Your task to perform on an android device: uninstall "File Manager" Image 0: 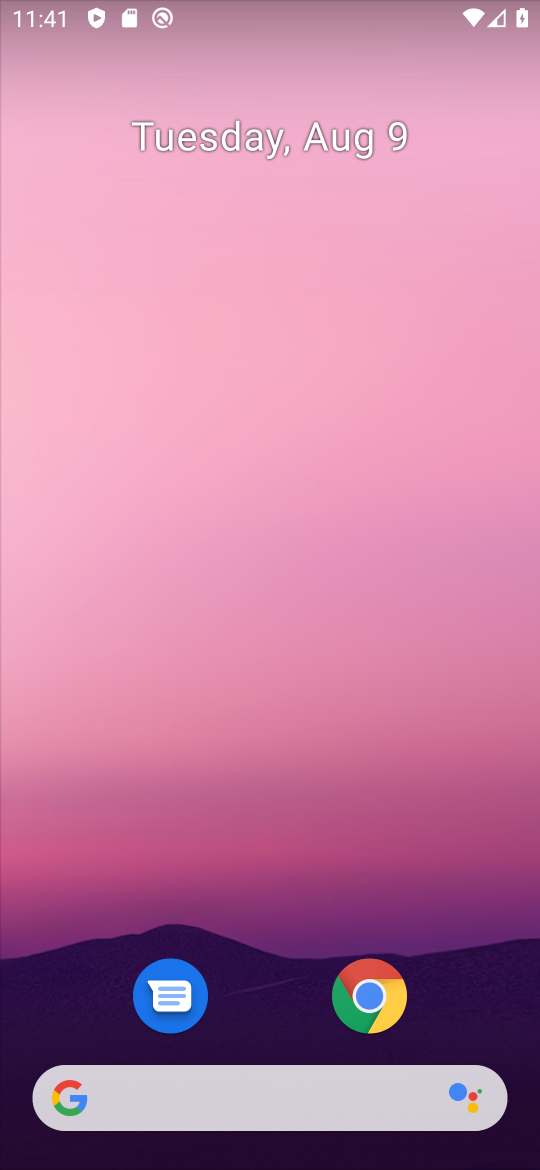
Step 0: drag from (136, 976) to (199, 299)
Your task to perform on an android device: uninstall "File Manager" Image 1: 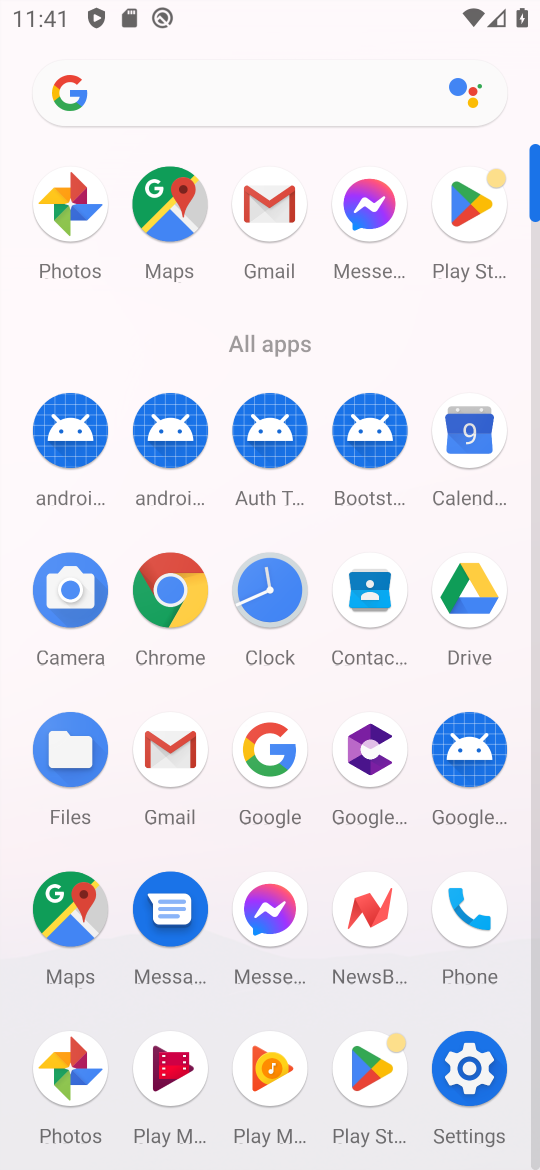
Step 1: click (72, 749)
Your task to perform on an android device: uninstall "File Manager" Image 2: 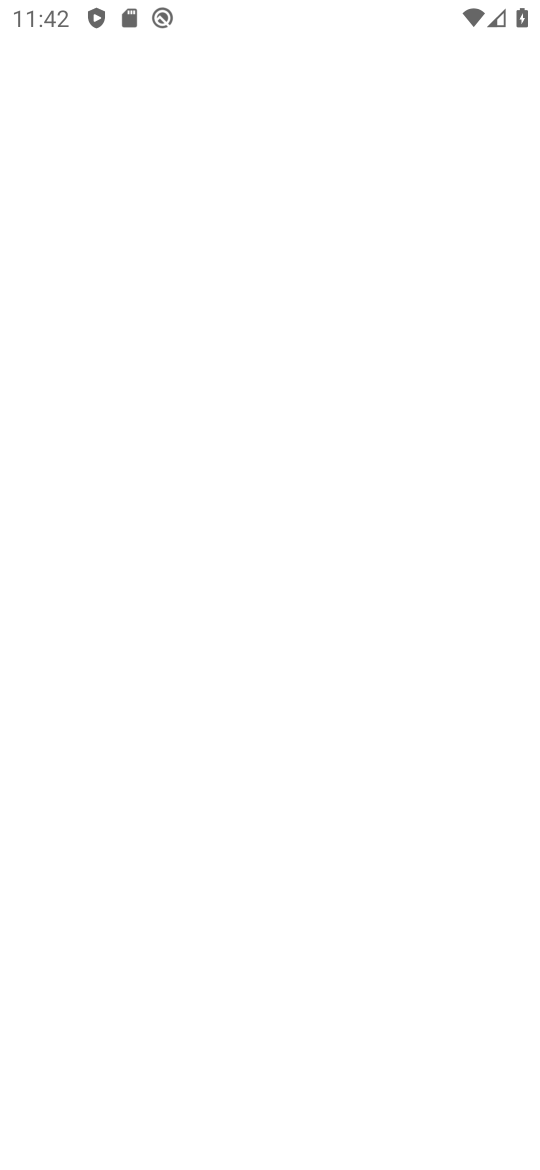
Step 2: press back button
Your task to perform on an android device: uninstall "File Manager" Image 3: 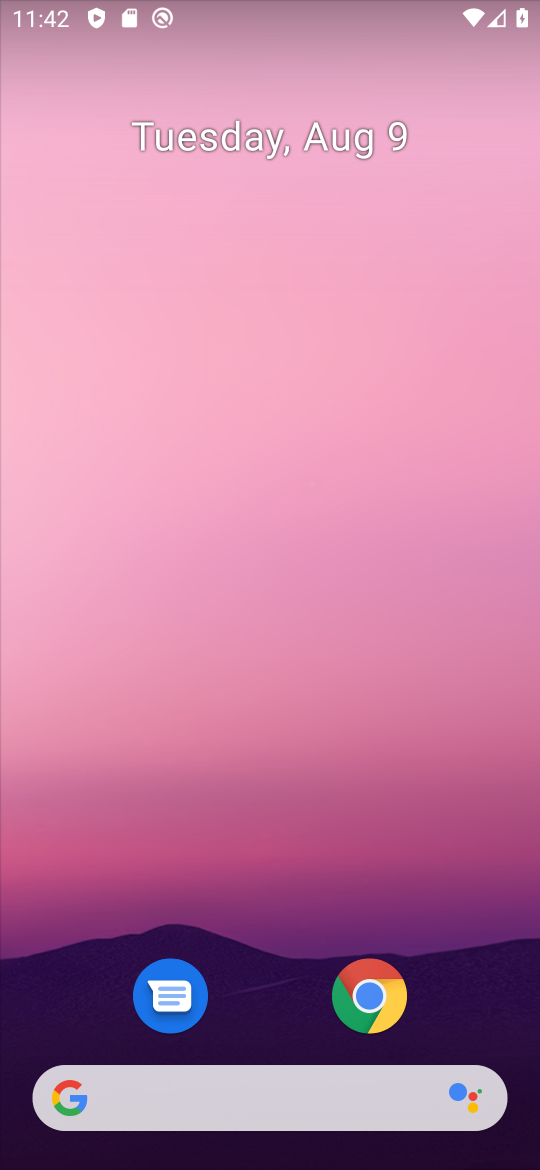
Step 3: drag from (272, 811) to (307, 195)
Your task to perform on an android device: uninstall "File Manager" Image 4: 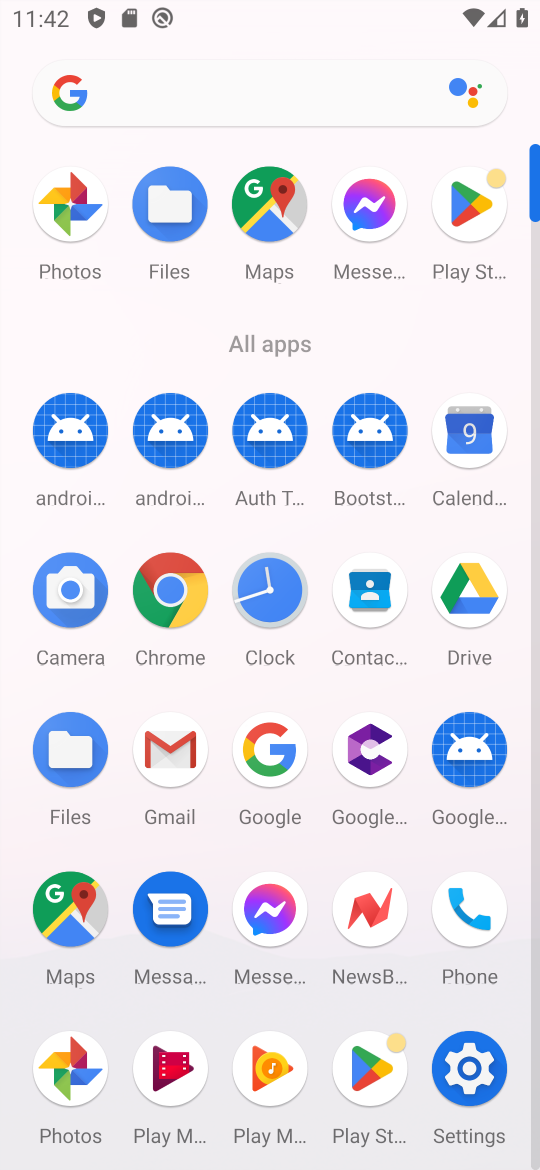
Step 4: click (459, 218)
Your task to perform on an android device: uninstall "File Manager" Image 5: 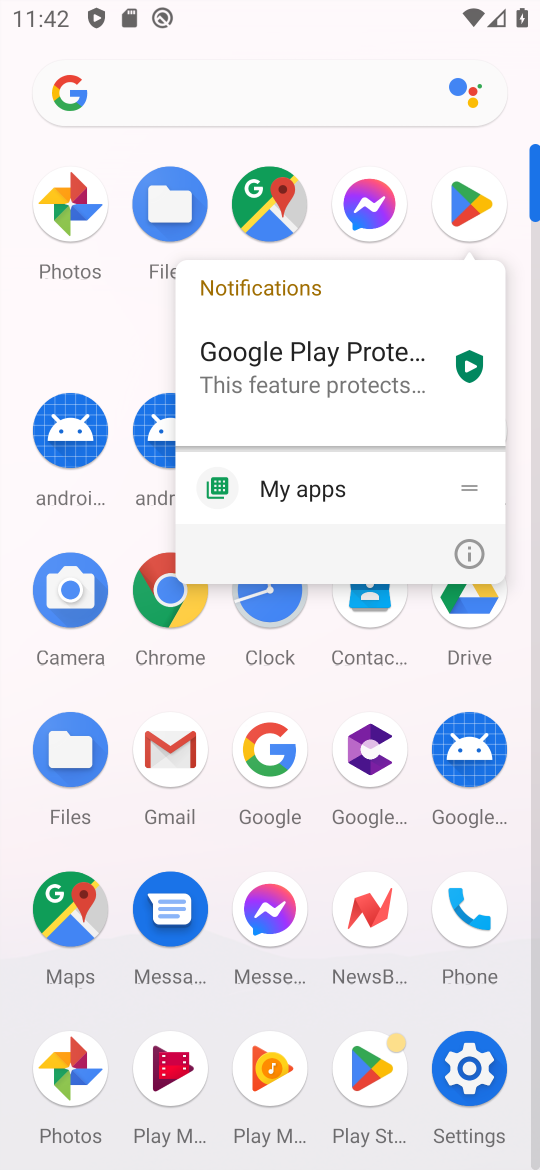
Step 5: click (459, 217)
Your task to perform on an android device: uninstall "File Manager" Image 6: 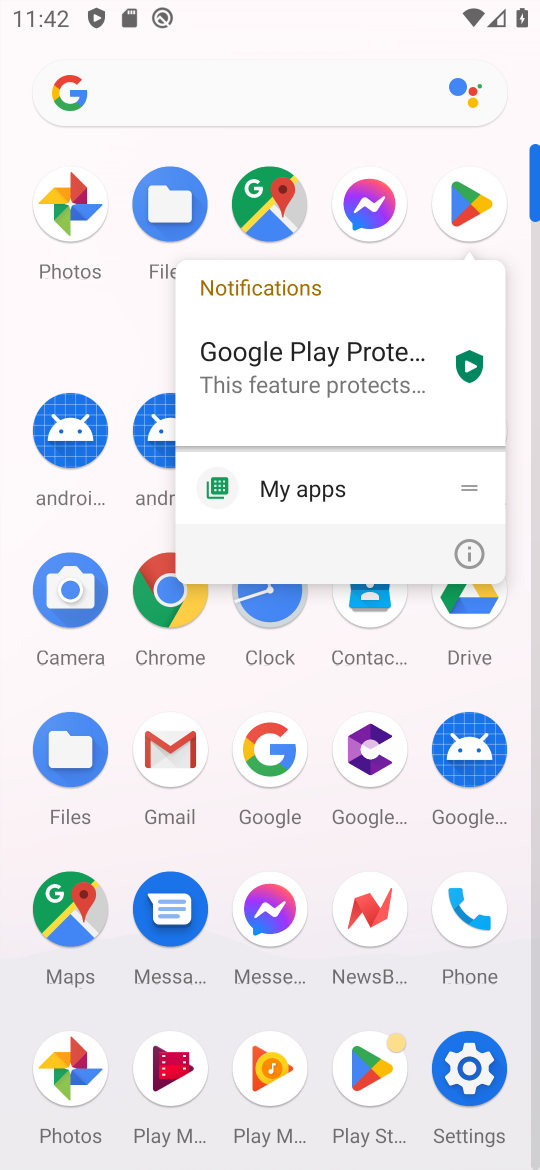
Step 6: click (459, 214)
Your task to perform on an android device: uninstall "File Manager" Image 7: 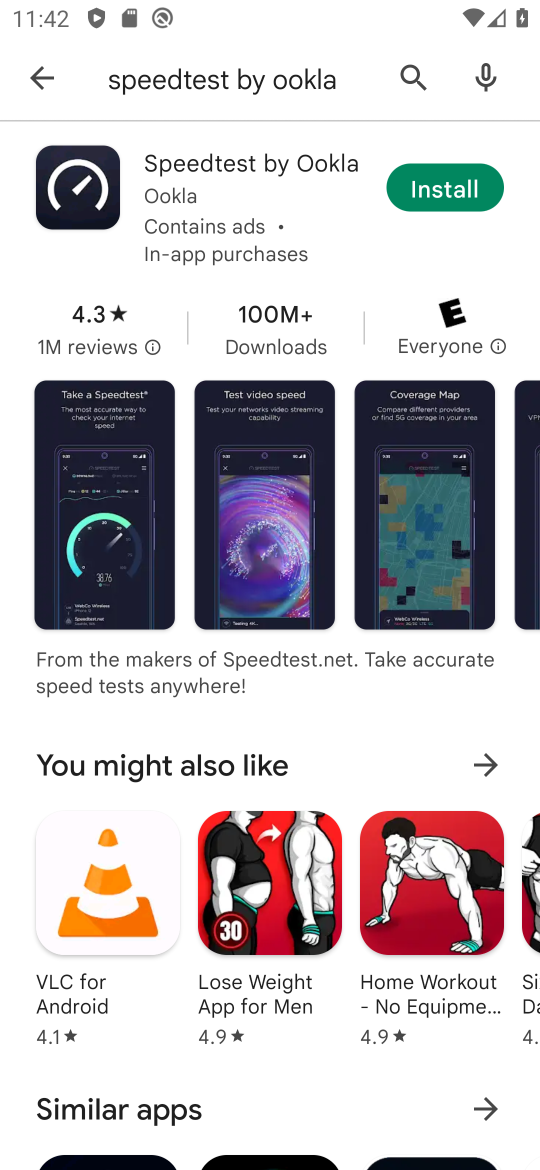
Step 7: click (42, 65)
Your task to perform on an android device: uninstall "File Manager" Image 8: 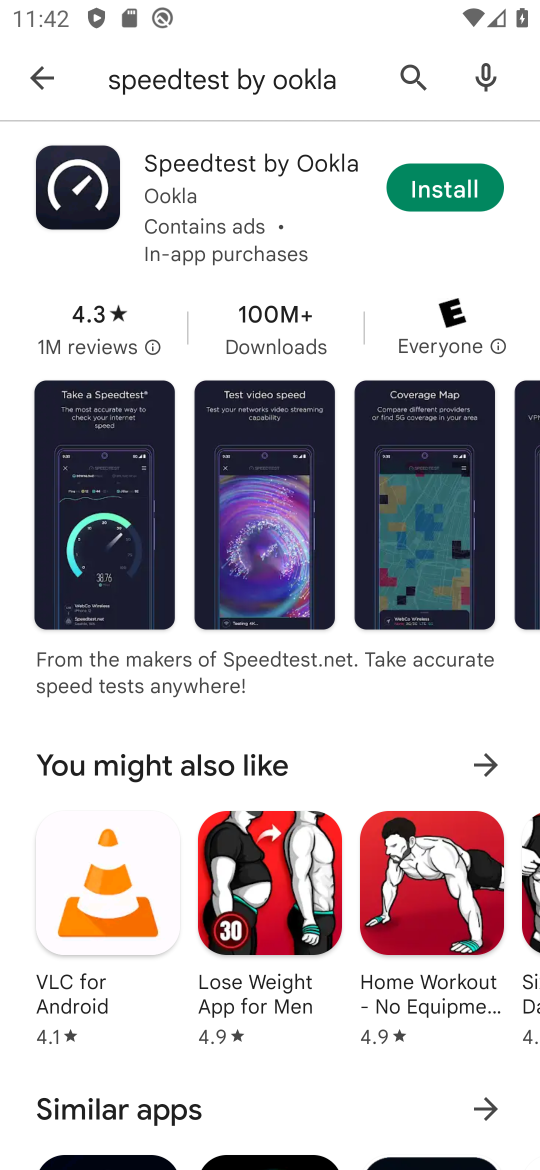
Step 8: click (42, 65)
Your task to perform on an android device: uninstall "File Manager" Image 9: 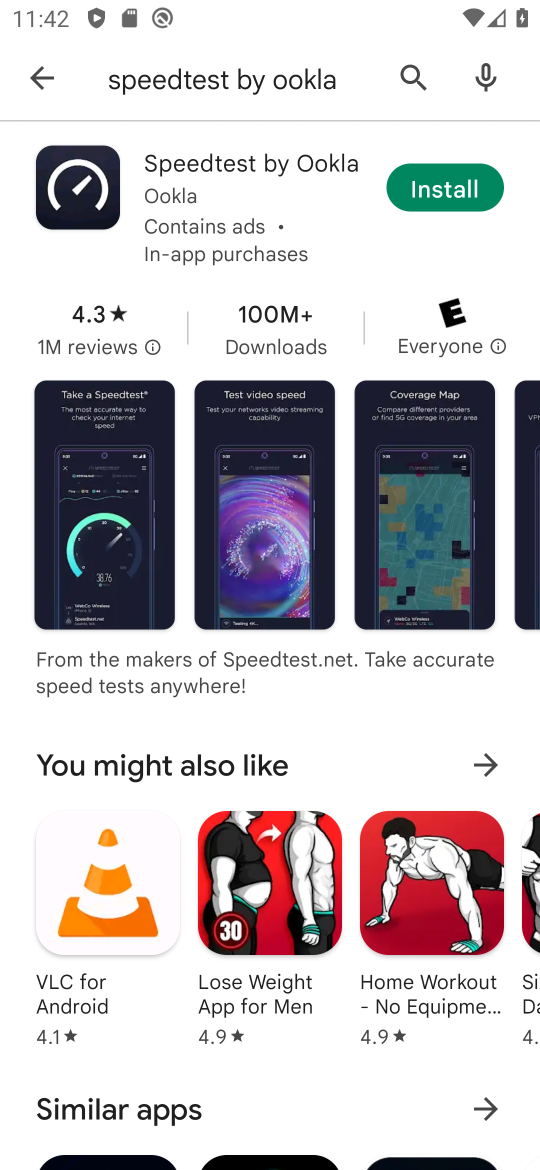
Step 9: click (37, 110)
Your task to perform on an android device: uninstall "File Manager" Image 10: 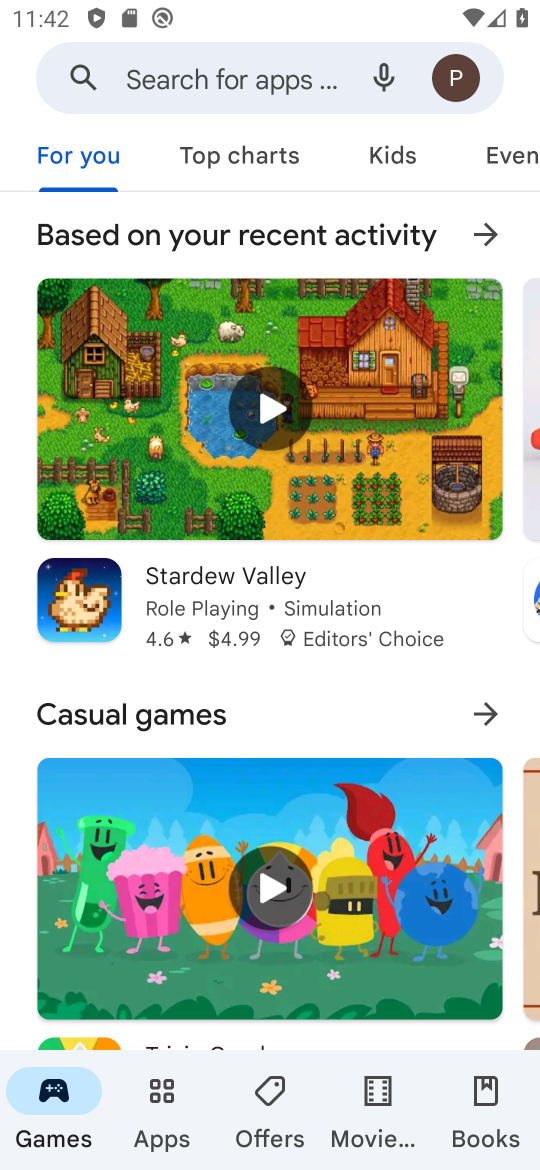
Step 10: click (232, 80)
Your task to perform on an android device: uninstall "File Manager" Image 11: 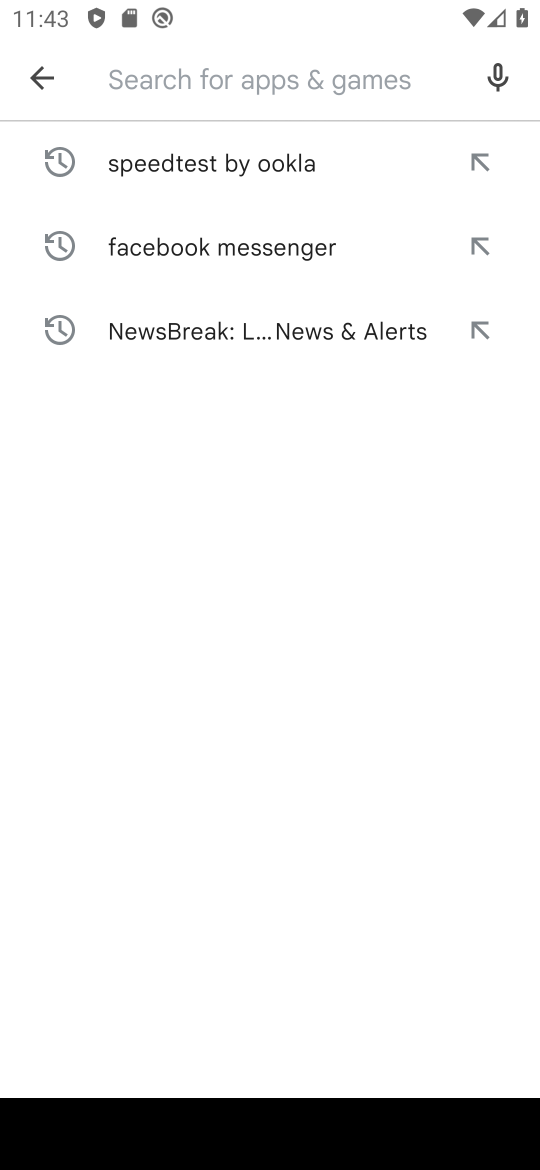
Step 11: type "File Manager"
Your task to perform on an android device: uninstall "File Manager" Image 12: 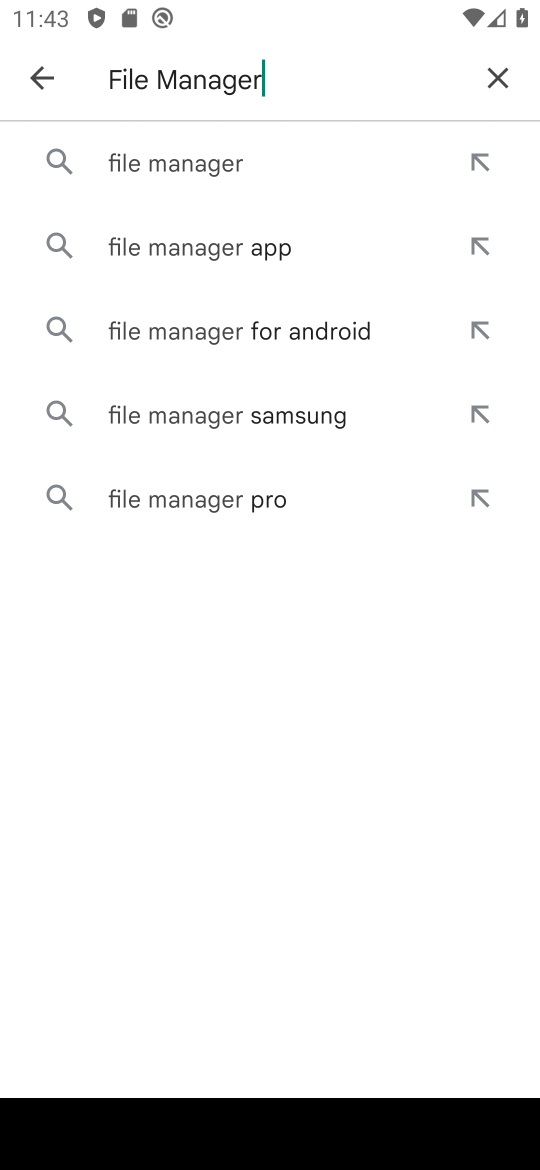
Step 12: click (138, 148)
Your task to perform on an android device: uninstall "File Manager" Image 13: 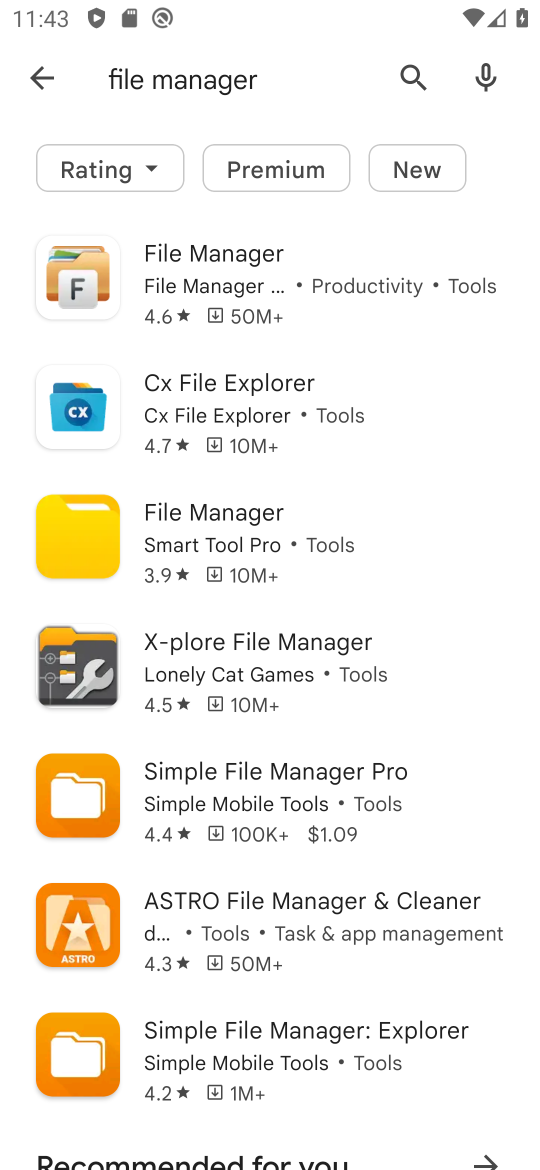
Step 13: click (141, 302)
Your task to perform on an android device: uninstall "File Manager" Image 14: 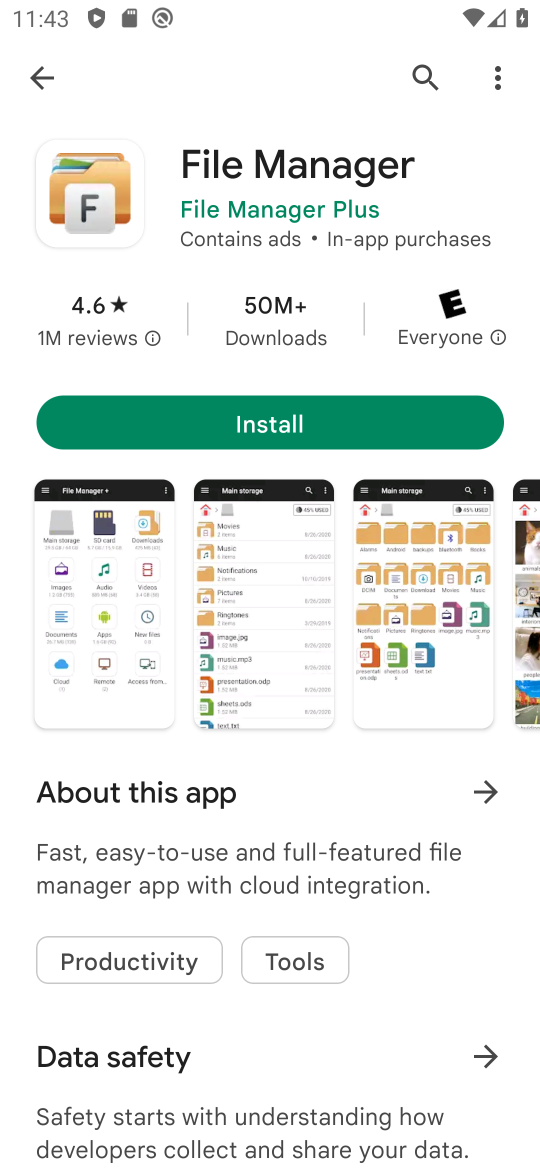
Step 14: task complete